Your task to perform on an android device: see creations saved in the google photos Image 0: 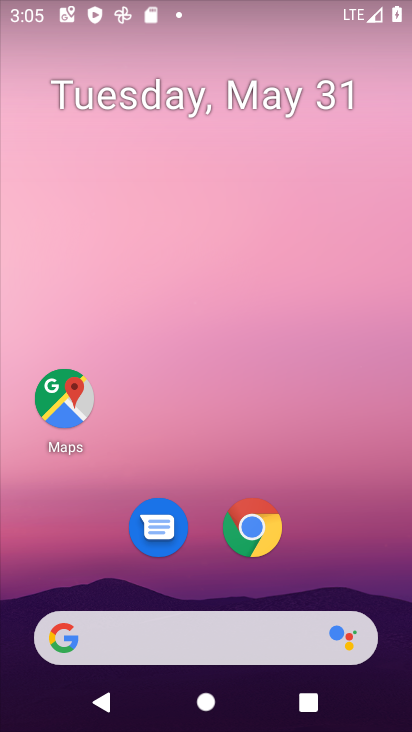
Step 0: drag from (401, 547) to (394, 113)
Your task to perform on an android device: see creations saved in the google photos Image 1: 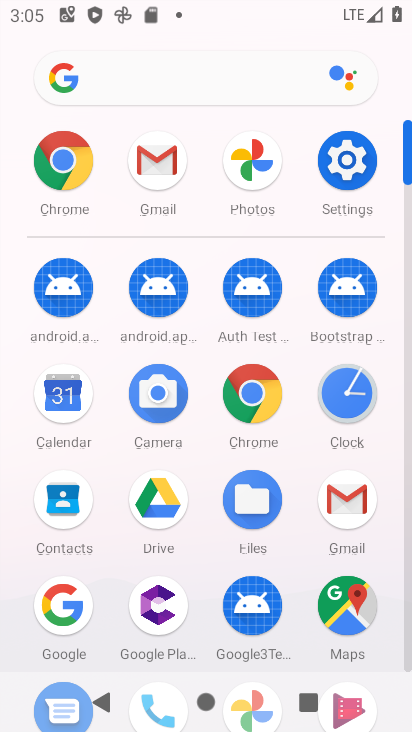
Step 1: click (246, 168)
Your task to perform on an android device: see creations saved in the google photos Image 2: 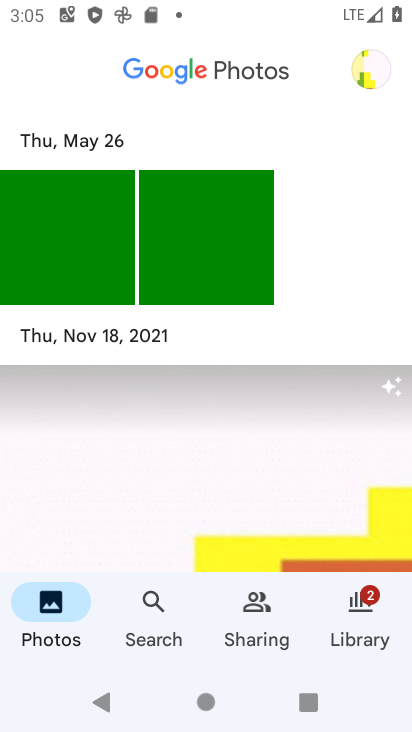
Step 2: task complete